Your task to perform on an android device: turn on the 24-hour format for clock Image 0: 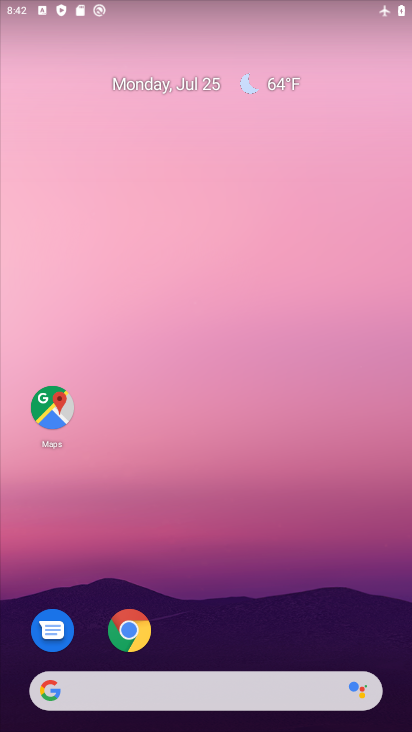
Step 0: drag from (326, 244) to (337, 22)
Your task to perform on an android device: turn on the 24-hour format for clock Image 1: 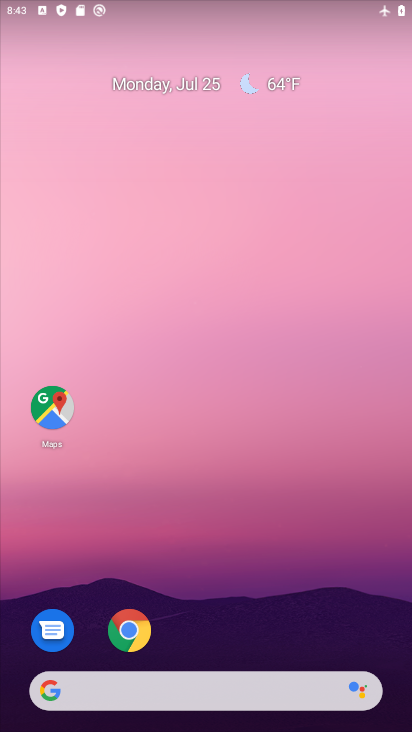
Step 1: drag from (355, 632) to (316, 132)
Your task to perform on an android device: turn on the 24-hour format for clock Image 2: 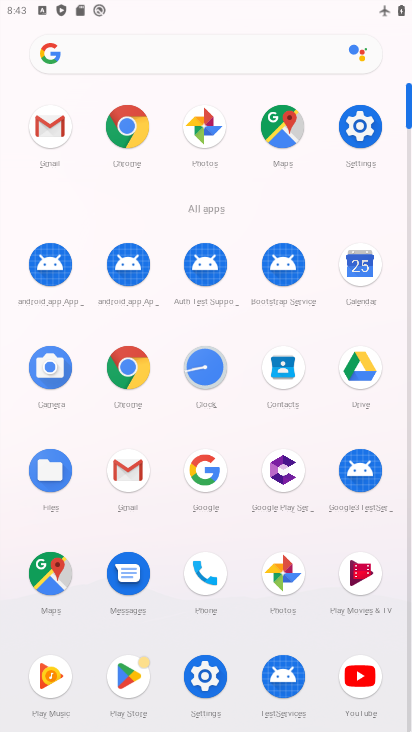
Step 2: click (206, 368)
Your task to perform on an android device: turn on the 24-hour format for clock Image 3: 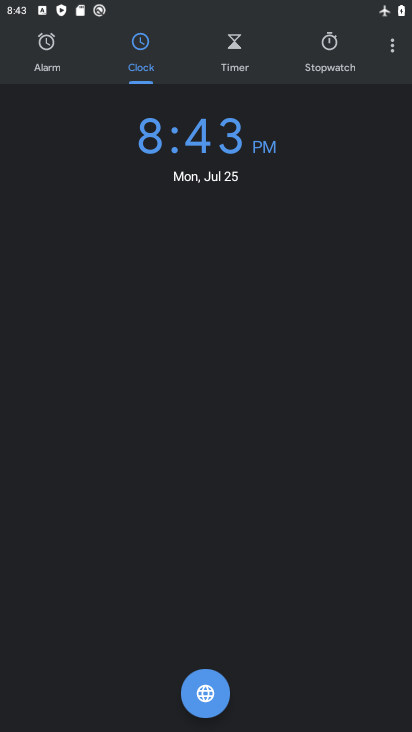
Step 3: click (395, 56)
Your task to perform on an android device: turn on the 24-hour format for clock Image 4: 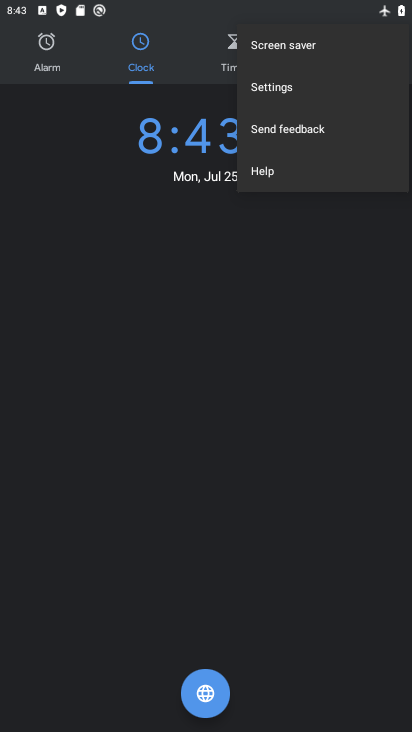
Step 4: click (260, 86)
Your task to perform on an android device: turn on the 24-hour format for clock Image 5: 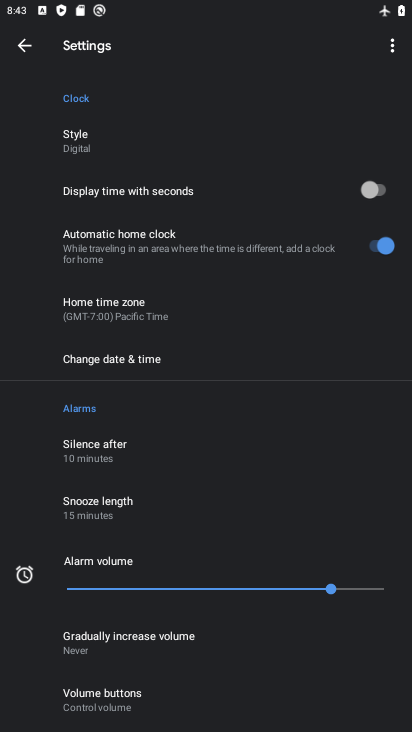
Step 5: click (121, 356)
Your task to perform on an android device: turn on the 24-hour format for clock Image 6: 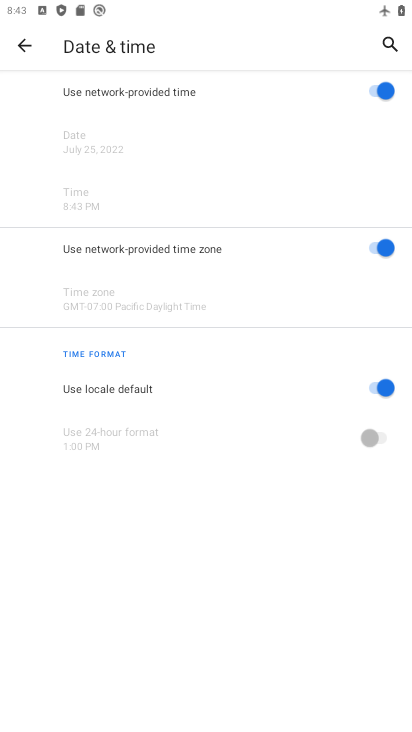
Step 6: click (374, 384)
Your task to perform on an android device: turn on the 24-hour format for clock Image 7: 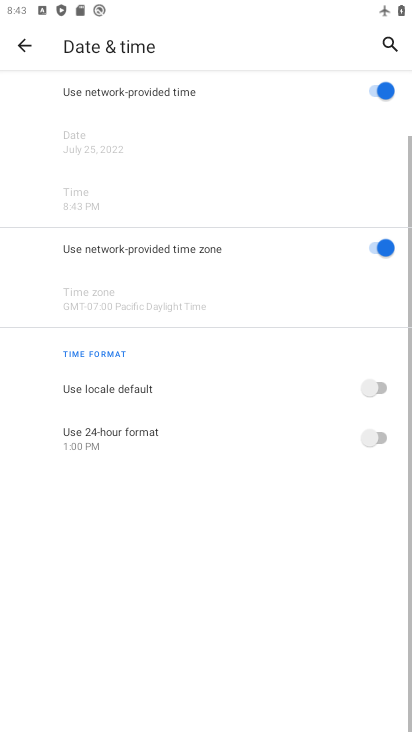
Step 7: click (381, 441)
Your task to perform on an android device: turn on the 24-hour format for clock Image 8: 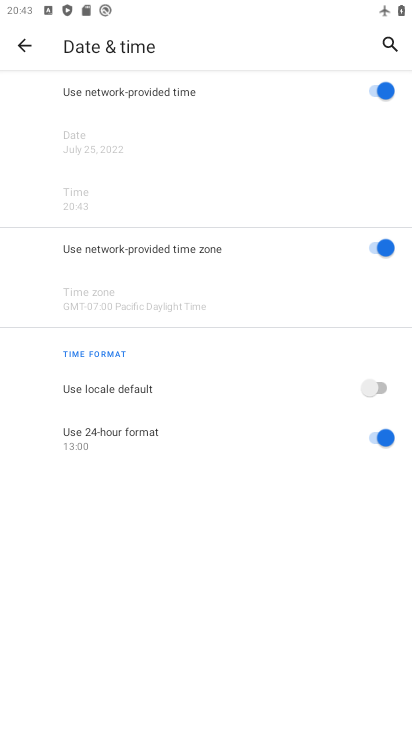
Step 8: task complete